Your task to perform on an android device: Search for a new bike on Walmart. Image 0: 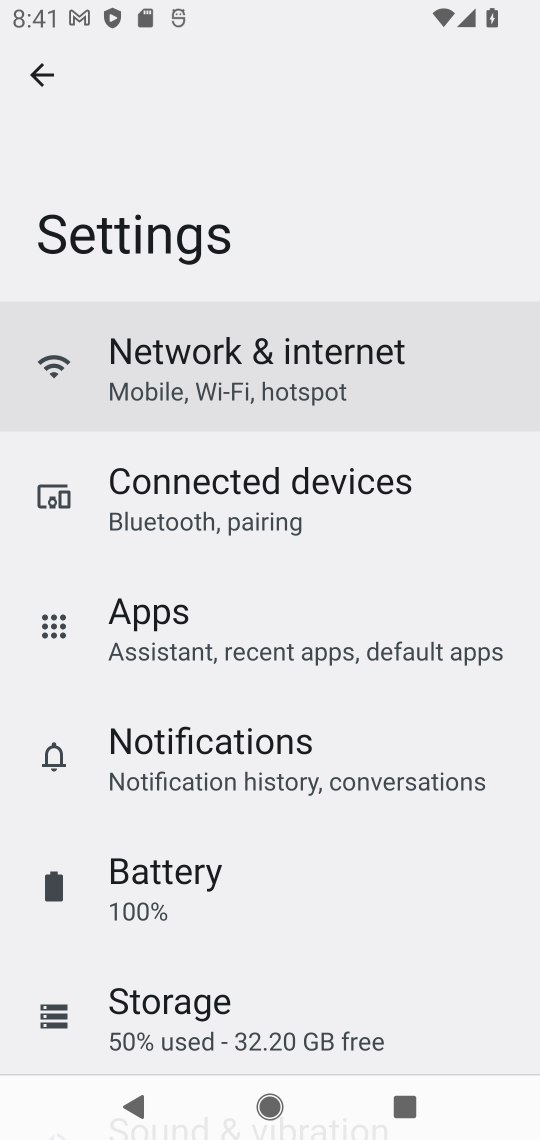
Step 0: press home button
Your task to perform on an android device: Search for a new bike on Walmart. Image 1: 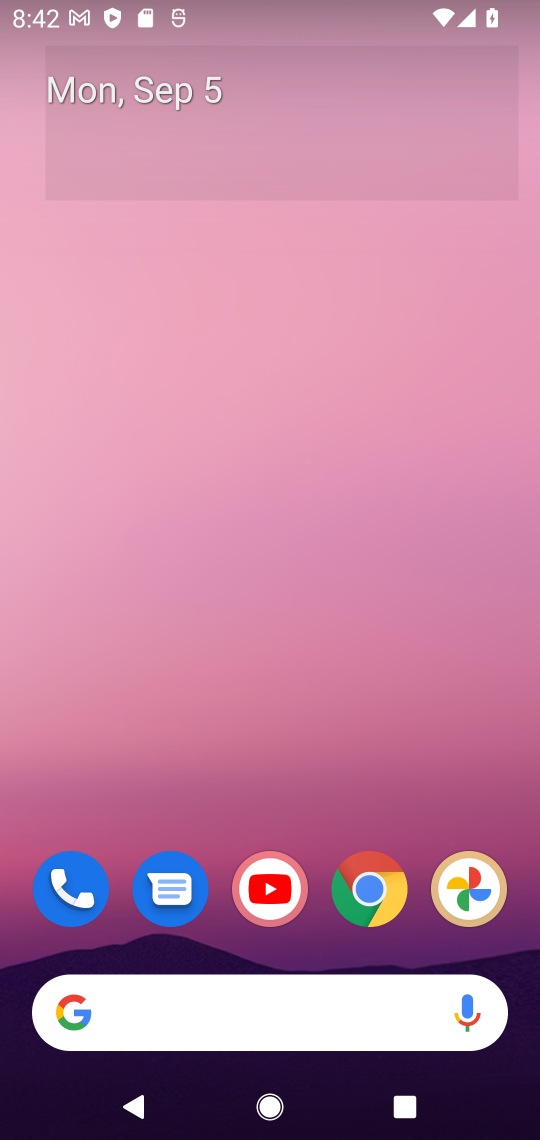
Step 1: click (249, 1003)
Your task to perform on an android device: Search for a new bike on Walmart. Image 2: 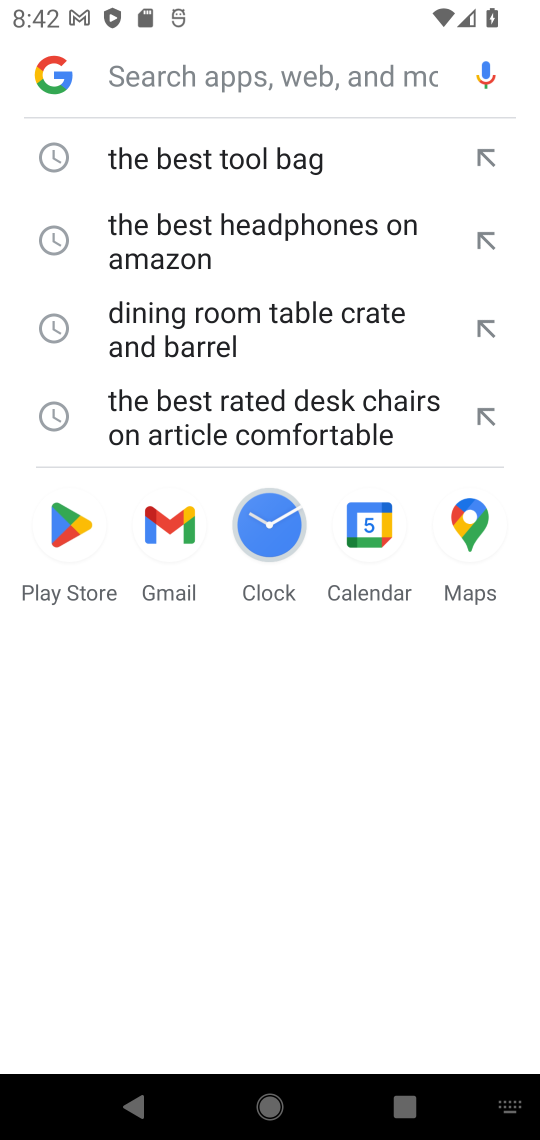
Step 2: type "a new bike on Walmart"
Your task to perform on an android device: Search for a new bike on Walmart. Image 3: 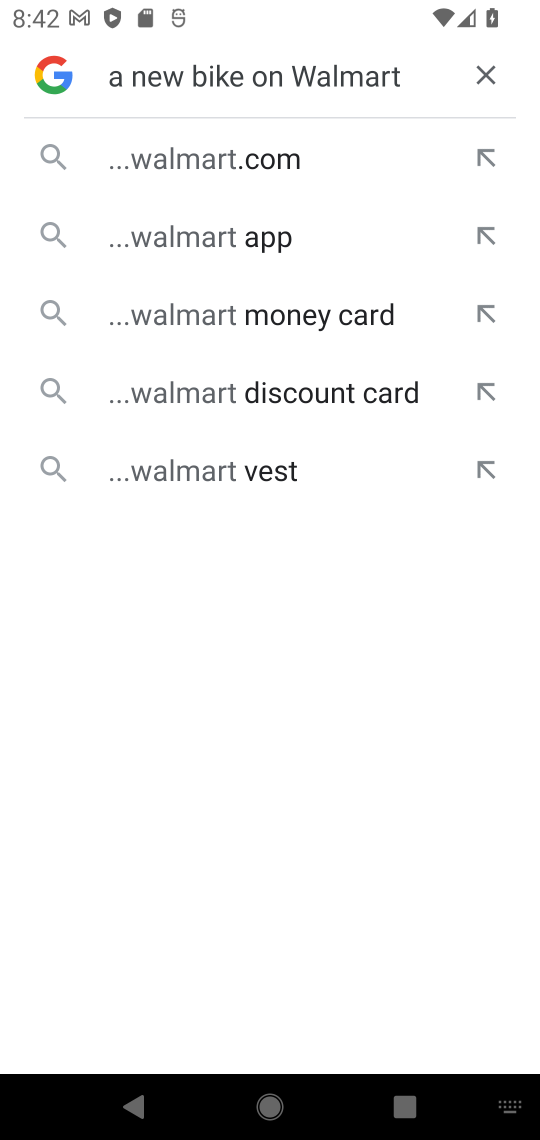
Step 3: click (213, 152)
Your task to perform on an android device: Search for a new bike on Walmart. Image 4: 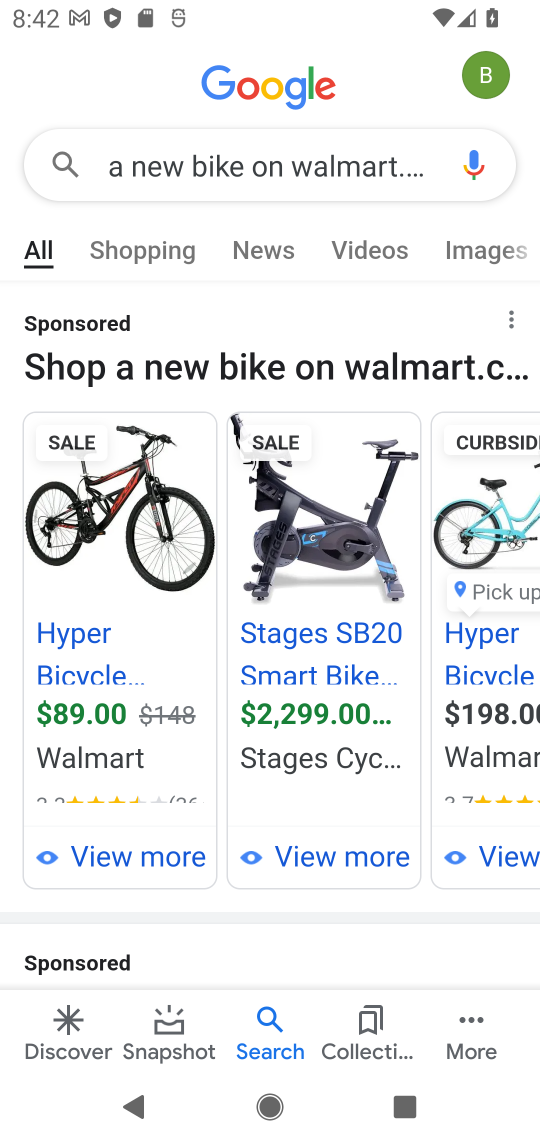
Step 4: task complete